Your task to perform on an android device: Go to Google maps Image 0: 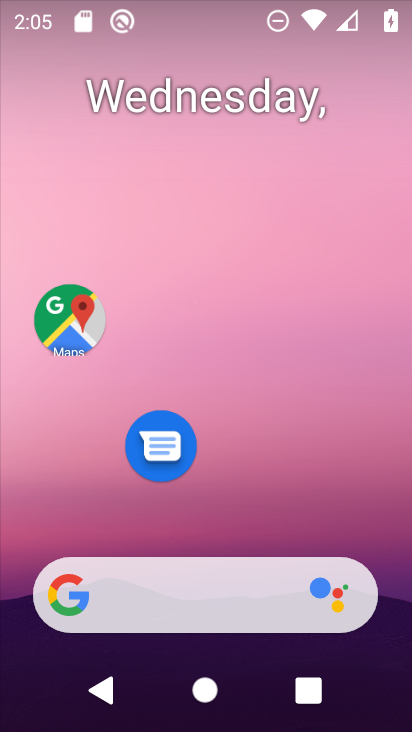
Step 0: drag from (307, 511) to (315, 128)
Your task to perform on an android device: Go to Google maps Image 1: 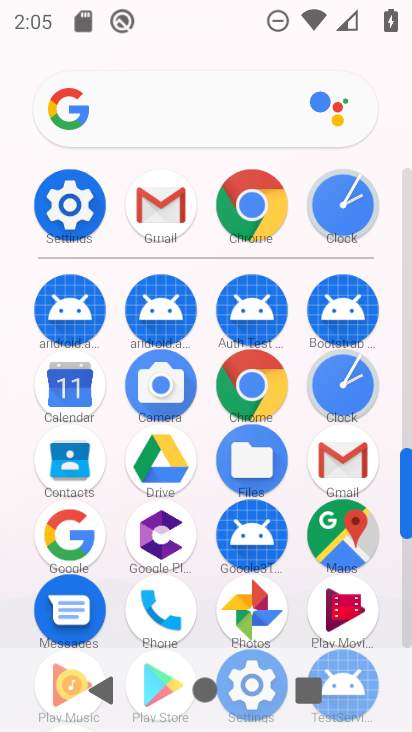
Step 1: click (349, 524)
Your task to perform on an android device: Go to Google maps Image 2: 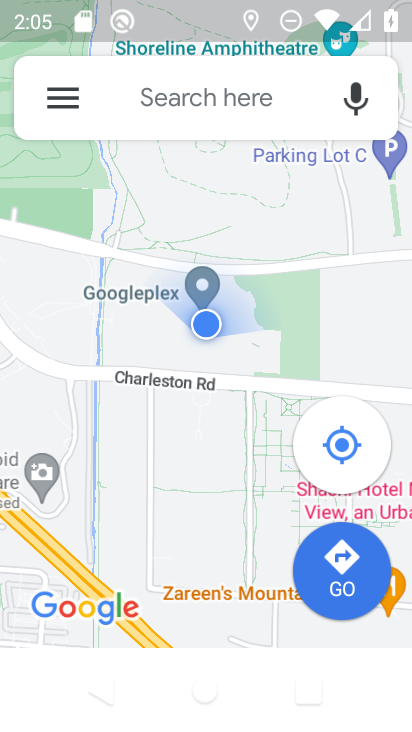
Step 2: click (218, 605)
Your task to perform on an android device: Go to Google maps Image 3: 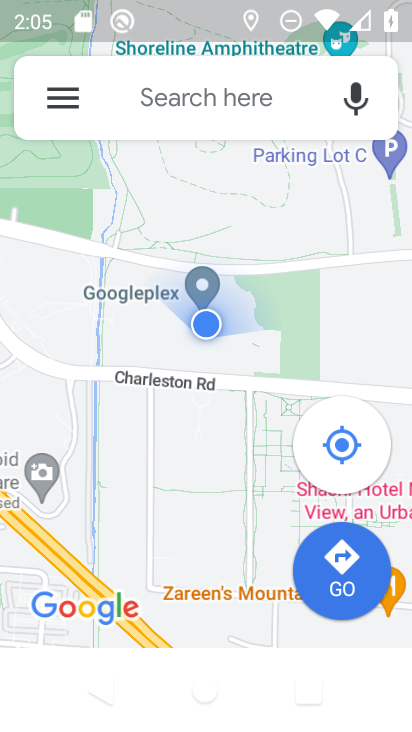
Step 3: task complete